Your task to perform on an android device: visit the assistant section in the google photos Image 0: 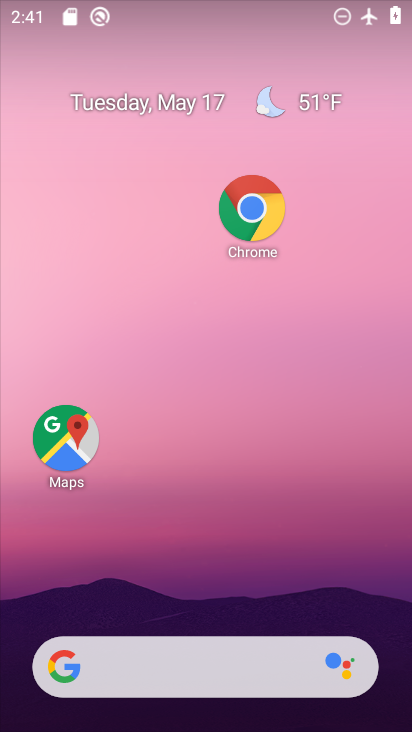
Step 0: drag from (203, 629) to (146, 92)
Your task to perform on an android device: visit the assistant section in the google photos Image 1: 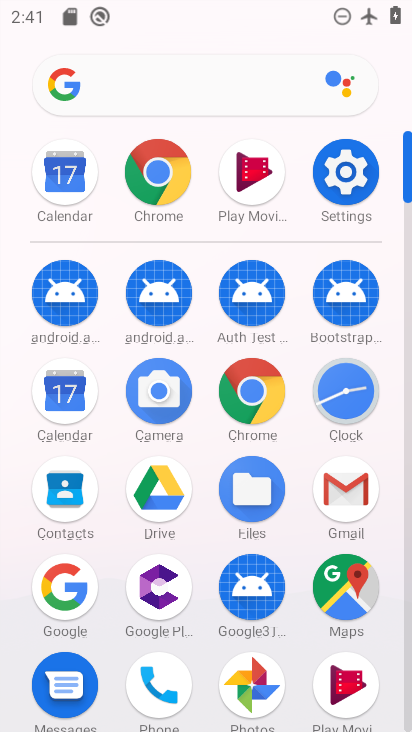
Step 1: click (242, 677)
Your task to perform on an android device: visit the assistant section in the google photos Image 2: 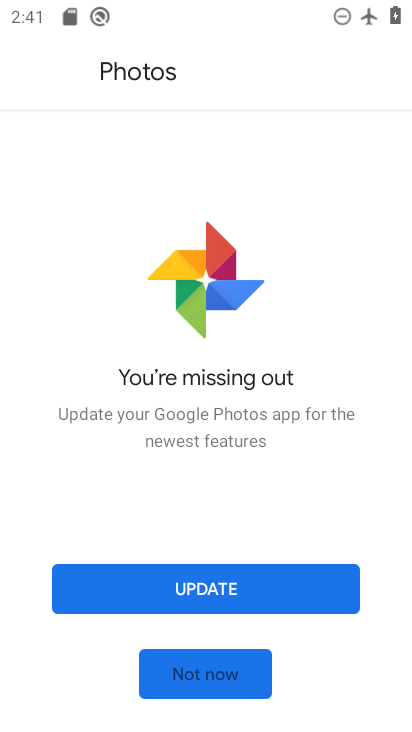
Step 2: click (226, 657)
Your task to perform on an android device: visit the assistant section in the google photos Image 3: 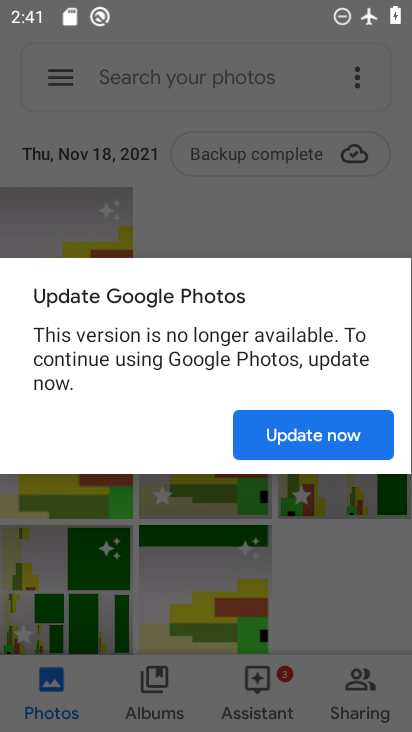
Step 3: click (305, 450)
Your task to perform on an android device: visit the assistant section in the google photos Image 4: 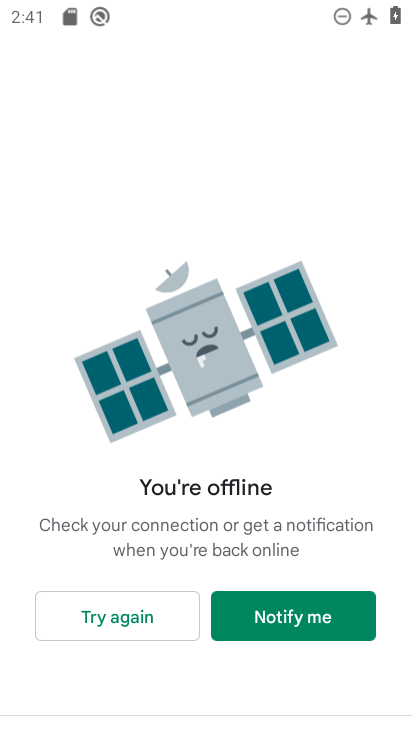
Step 4: click (289, 609)
Your task to perform on an android device: visit the assistant section in the google photos Image 5: 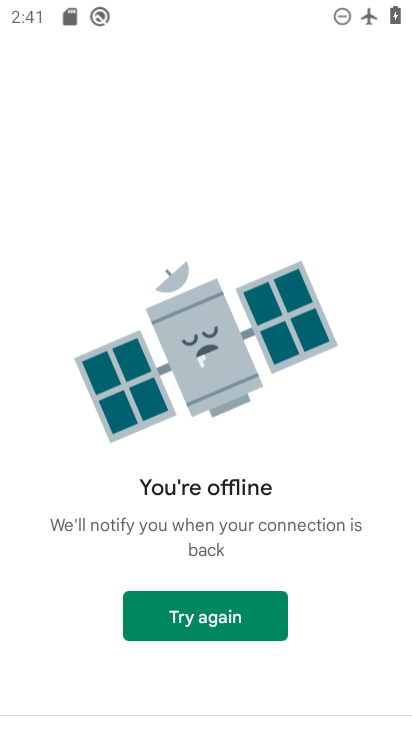
Step 5: task complete